Your task to perform on an android device: Open Amazon Image 0: 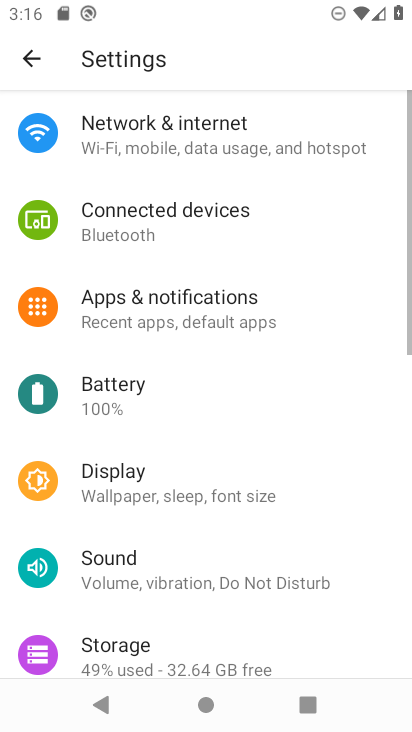
Step 0: press home button
Your task to perform on an android device: Open Amazon Image 1: 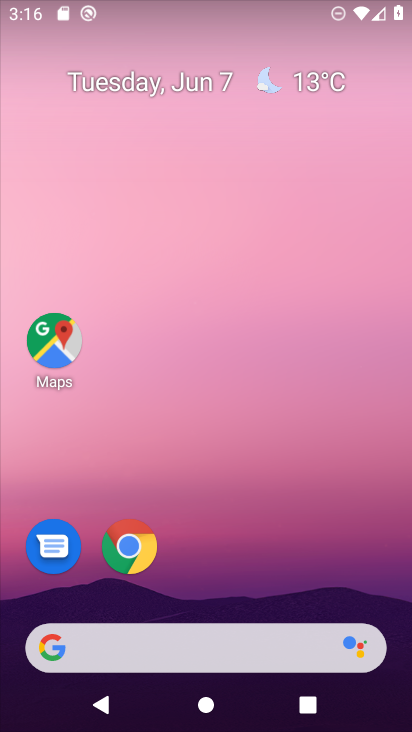
Step 1: click (139, 554)
Your task to perform on an android device: Open Amazon Image 2: 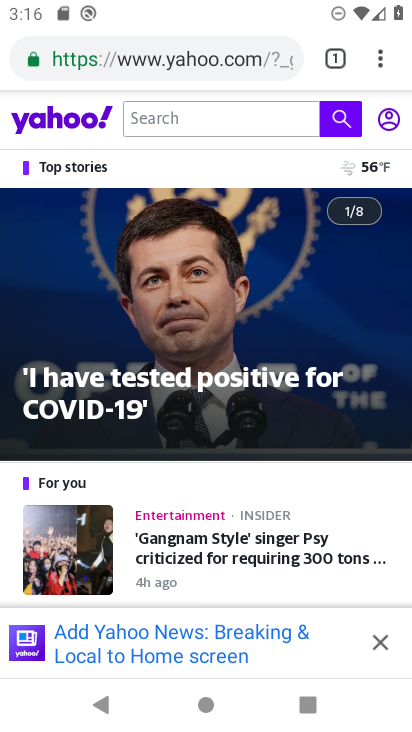
Step 2: click (343, 61)
Your task to perform on an android device: Open Amazon Image 3: 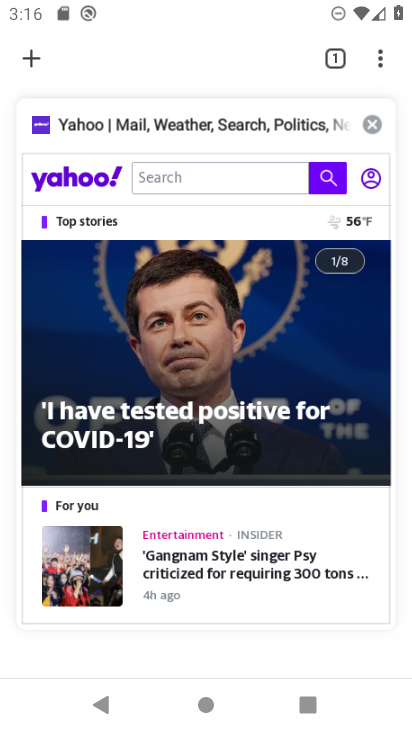
Step 3: click (373, 125)
Your task to perform on an android device: Open Amazon Image 4: 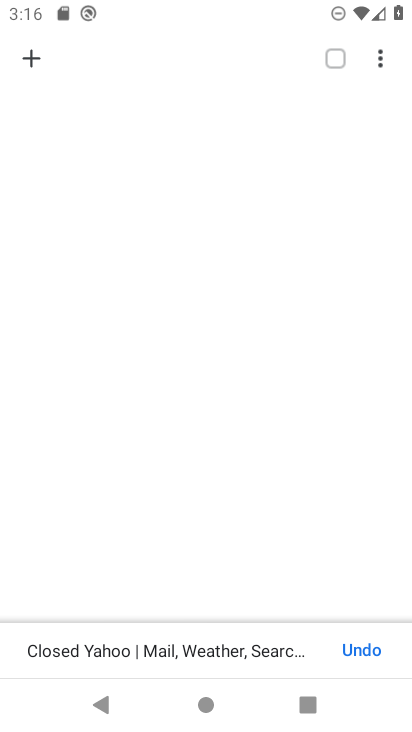
Step 4: click (40, 57)
Your task to perform on an android device: Open Amazon Image 5: 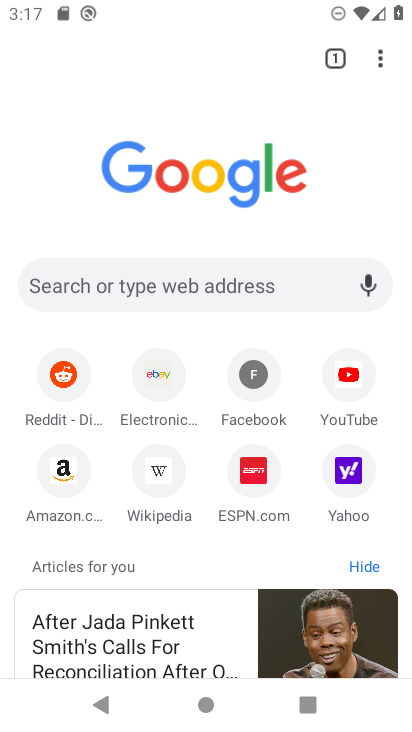
Step 5: click (64, 461)
Your task to perform on an android device: Open Amazon Image 6: 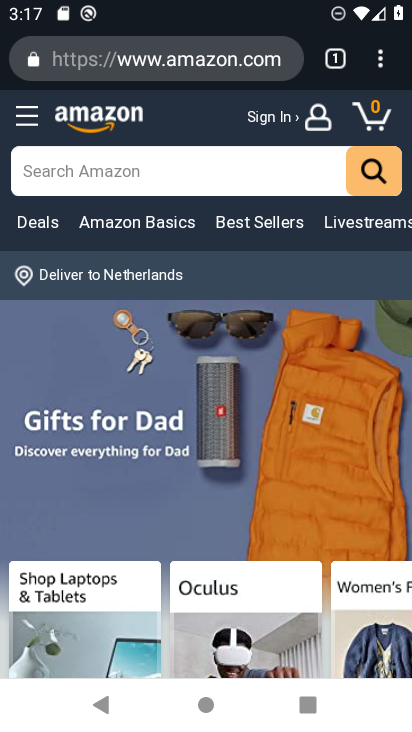
Step 6: task complete